Your task to perform on an android device: install app "LiveIn - Share Your Moment" Image 0: 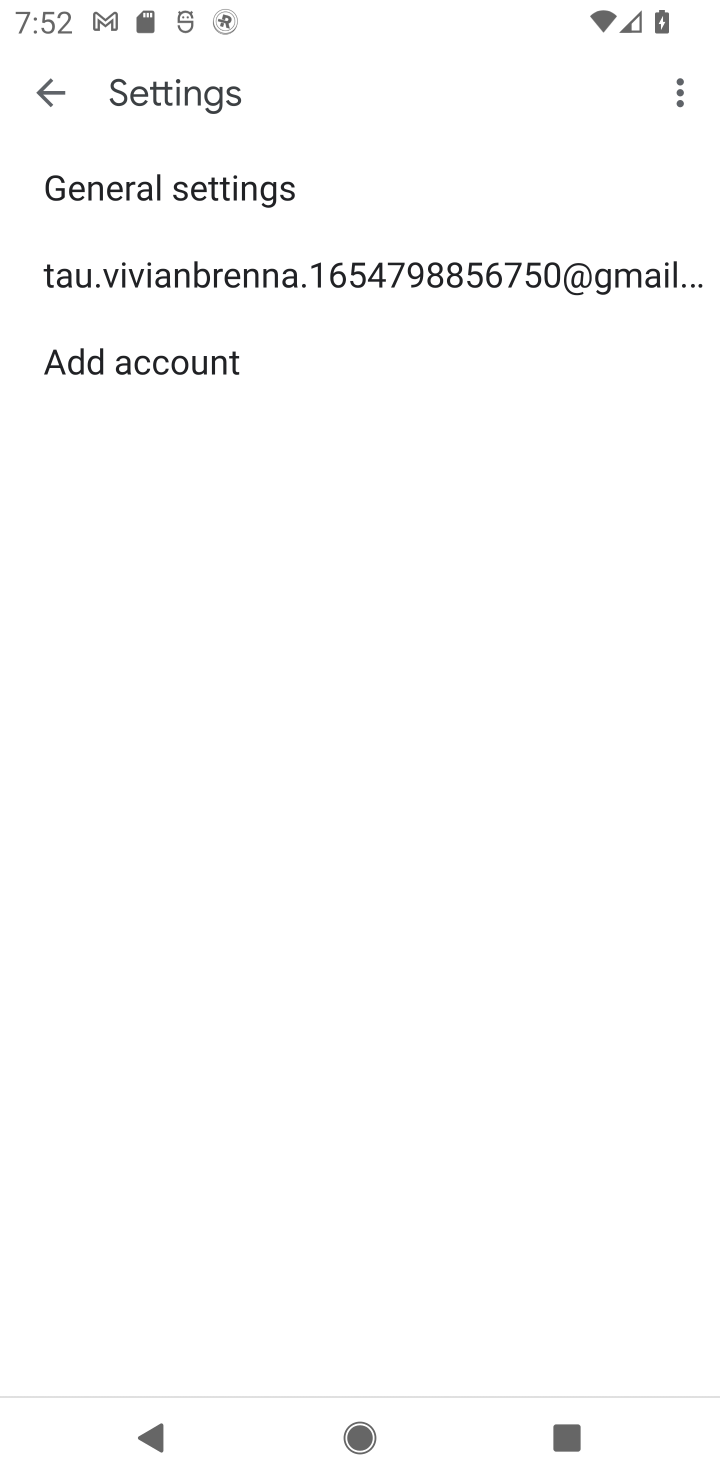
Step 0: press home button
Your task to perform on an android device: install app "LiveIn - Share Your Moment" Image 1: 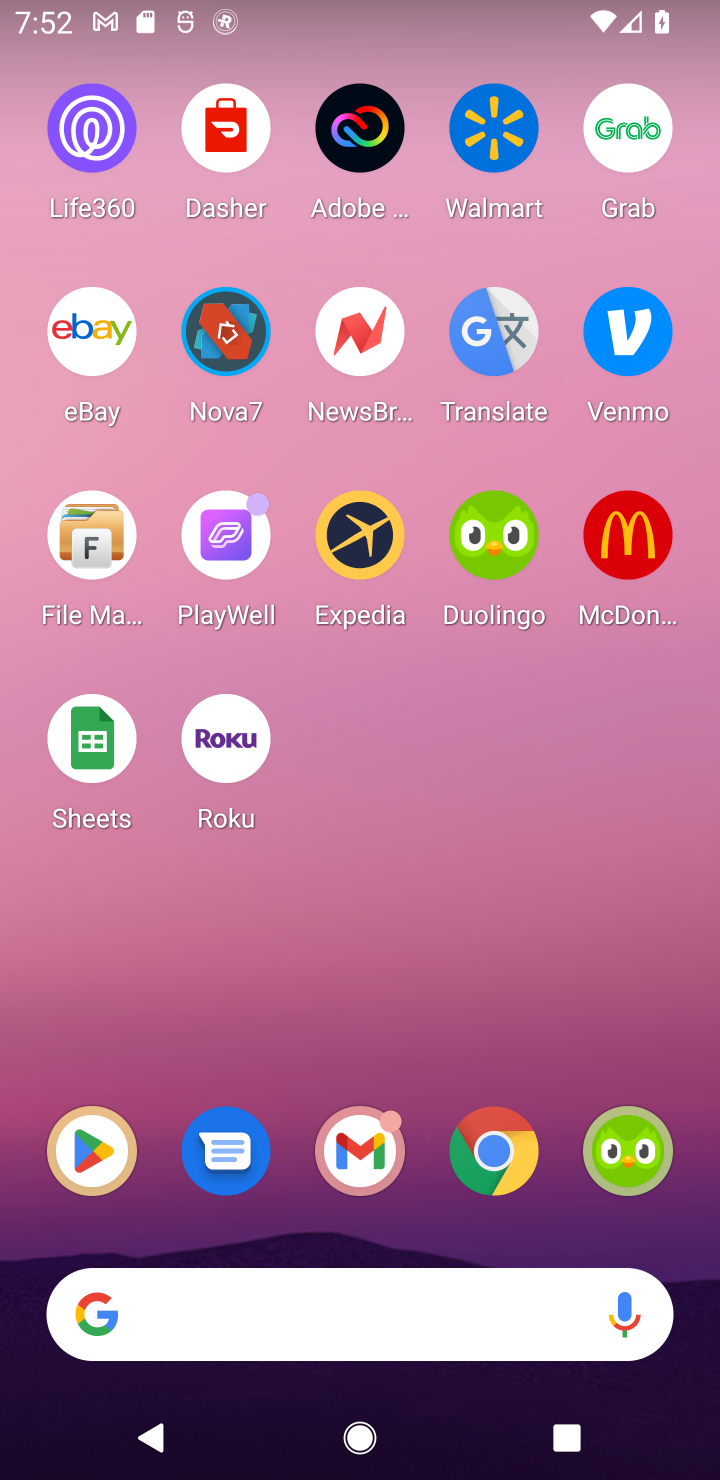
Step 1: click (67, 1179)
Your task to perform on an android device: install app "LiveIn - Share Your Moment" Image 2: 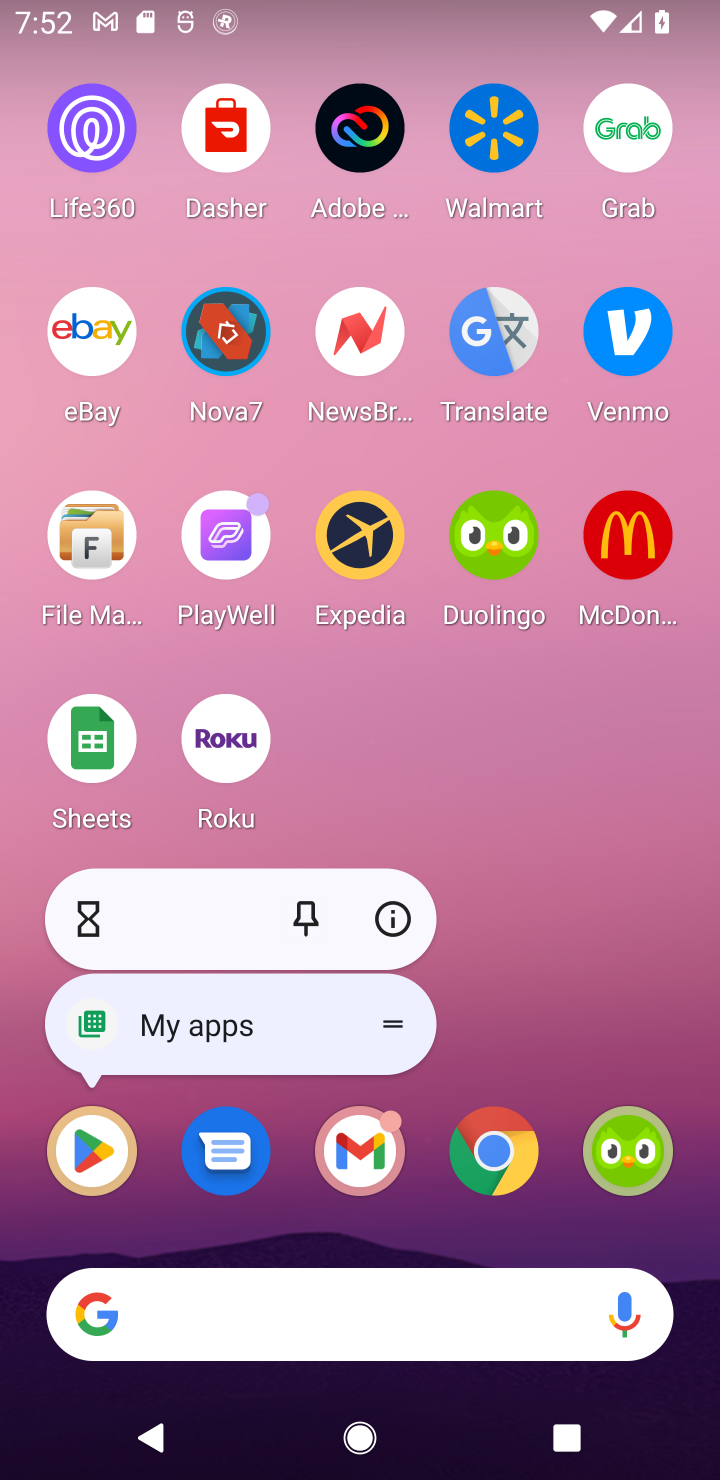
Step 2: click (67, 1179)
Your task to perform on an android device: install app "LiveIn - Share Your Moment" Image 3: 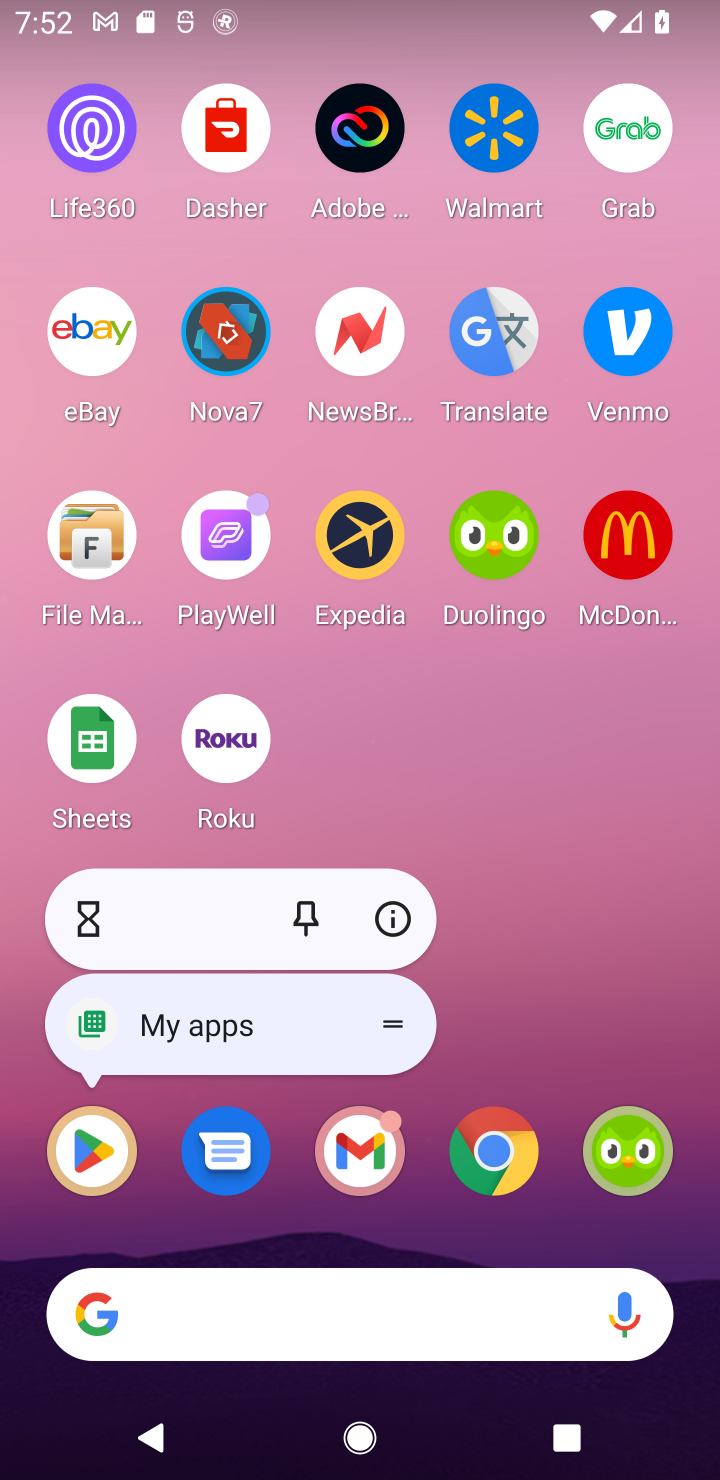
Step 3: click (86, 1155)
Your task to perform on an android device: install app "LiveIn - Share Your Moment" Image 4: 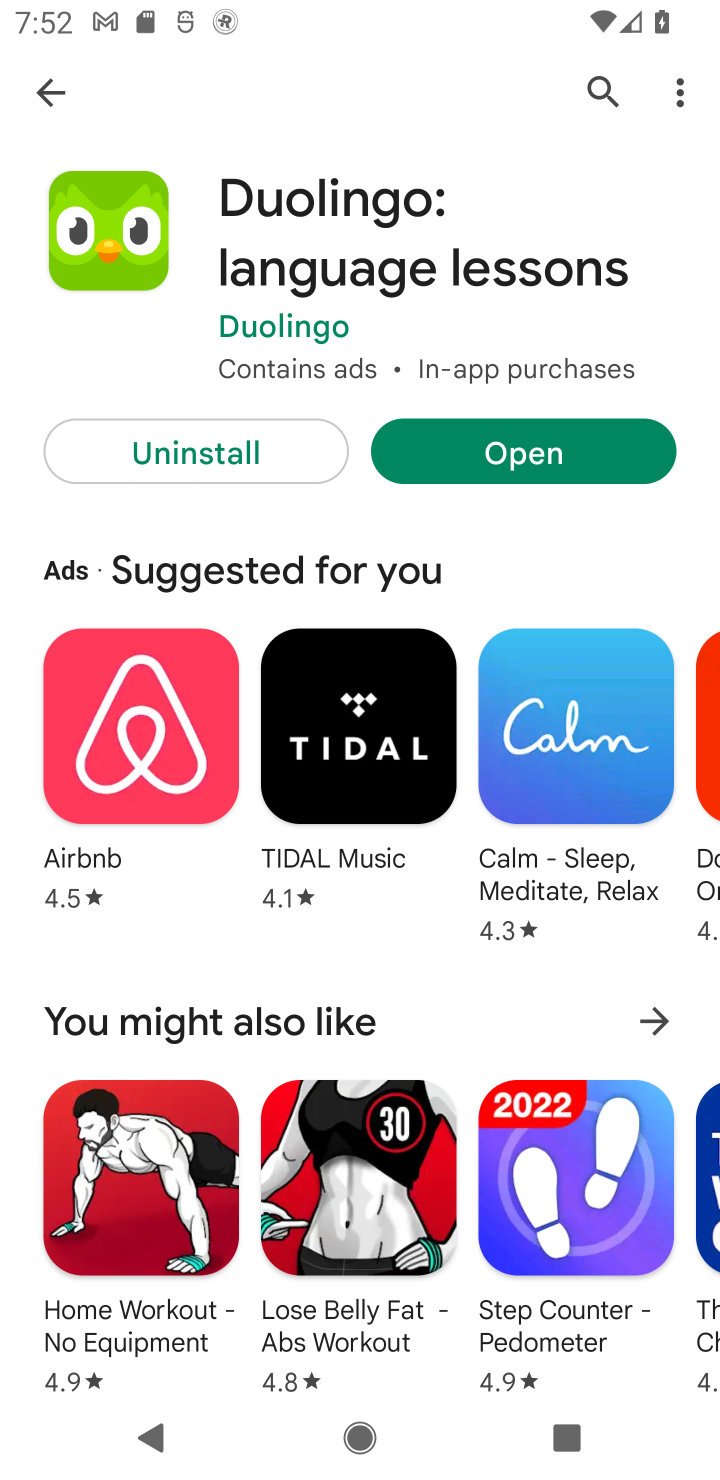
Step 4: click (609, 93)
Your task to perform on an android device: install app "LiveIn - Share Your Moment" Image 5: 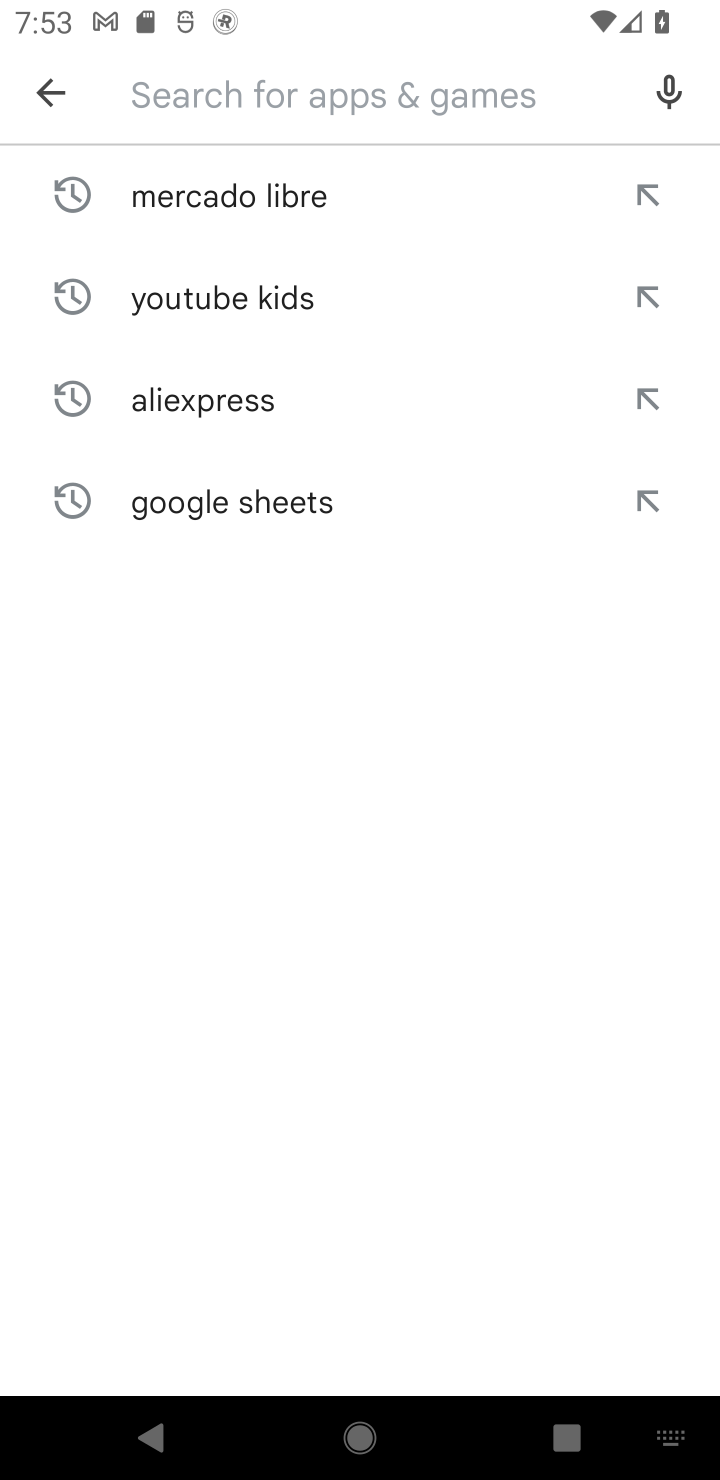
Step 5: type "LiveIn - Share Your Moment"
Your task to perform on an android device: install app "LiveIn - Share Your Moment" Image 6: 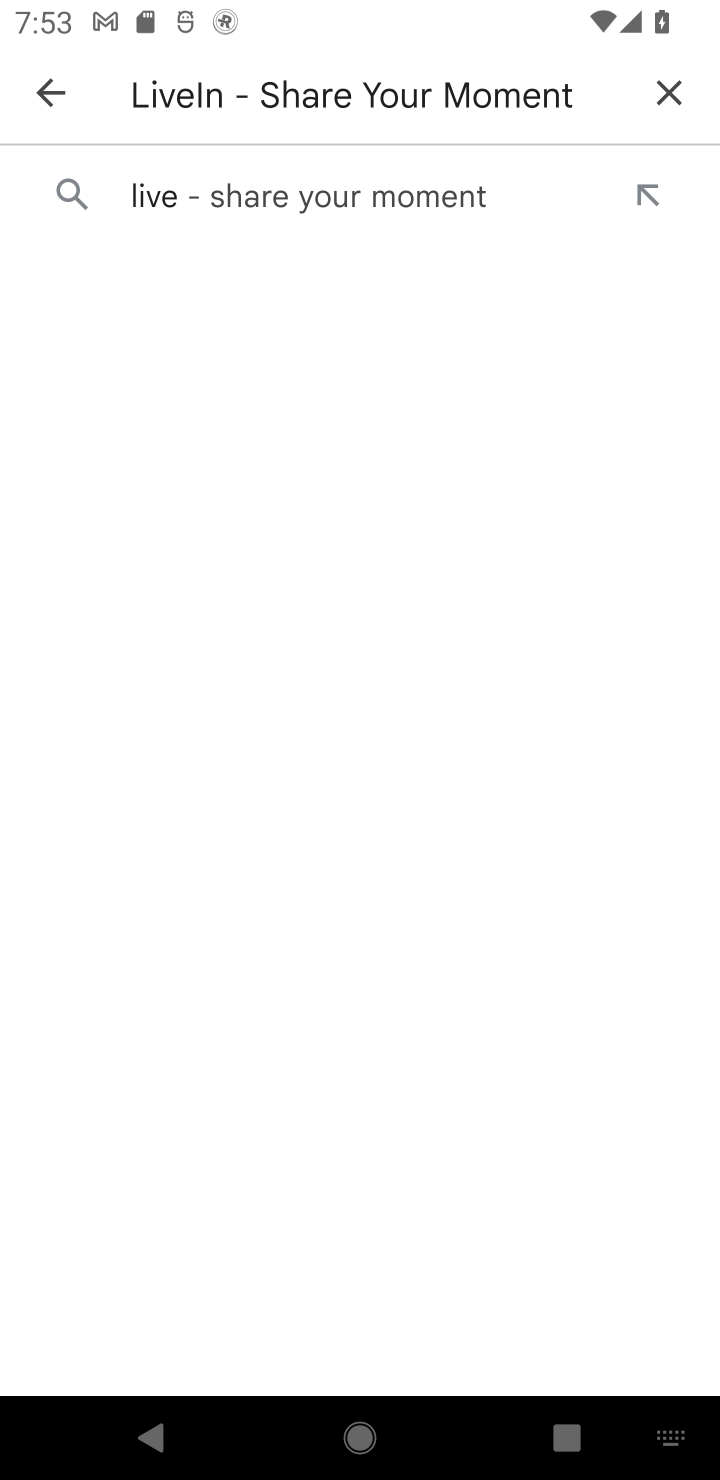
Step 6: click (336, 200)
Your task to perform on an android device: install app "LiveIn - Share Your Moment" Image 7: 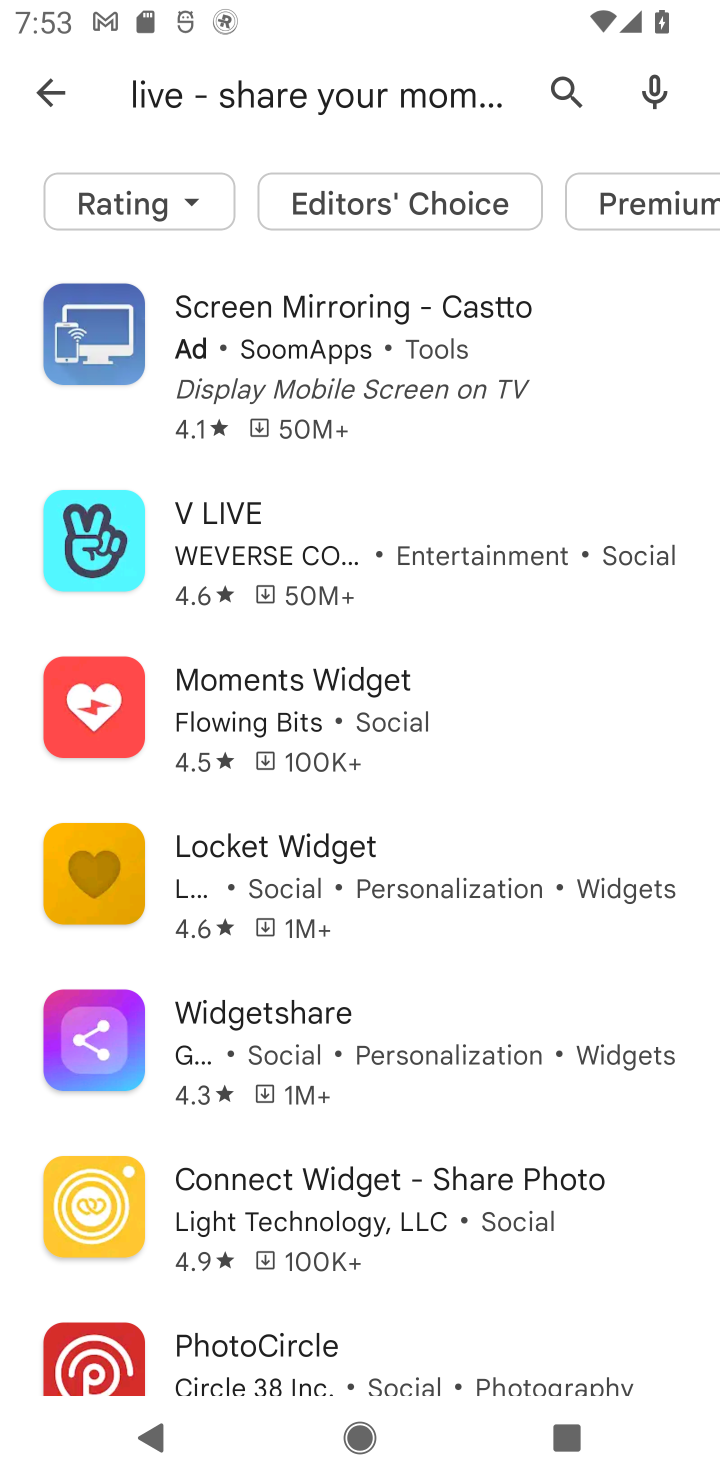
Step 7: task complete